Your task to perform on an android device: Go to Reddit.com Image 0: 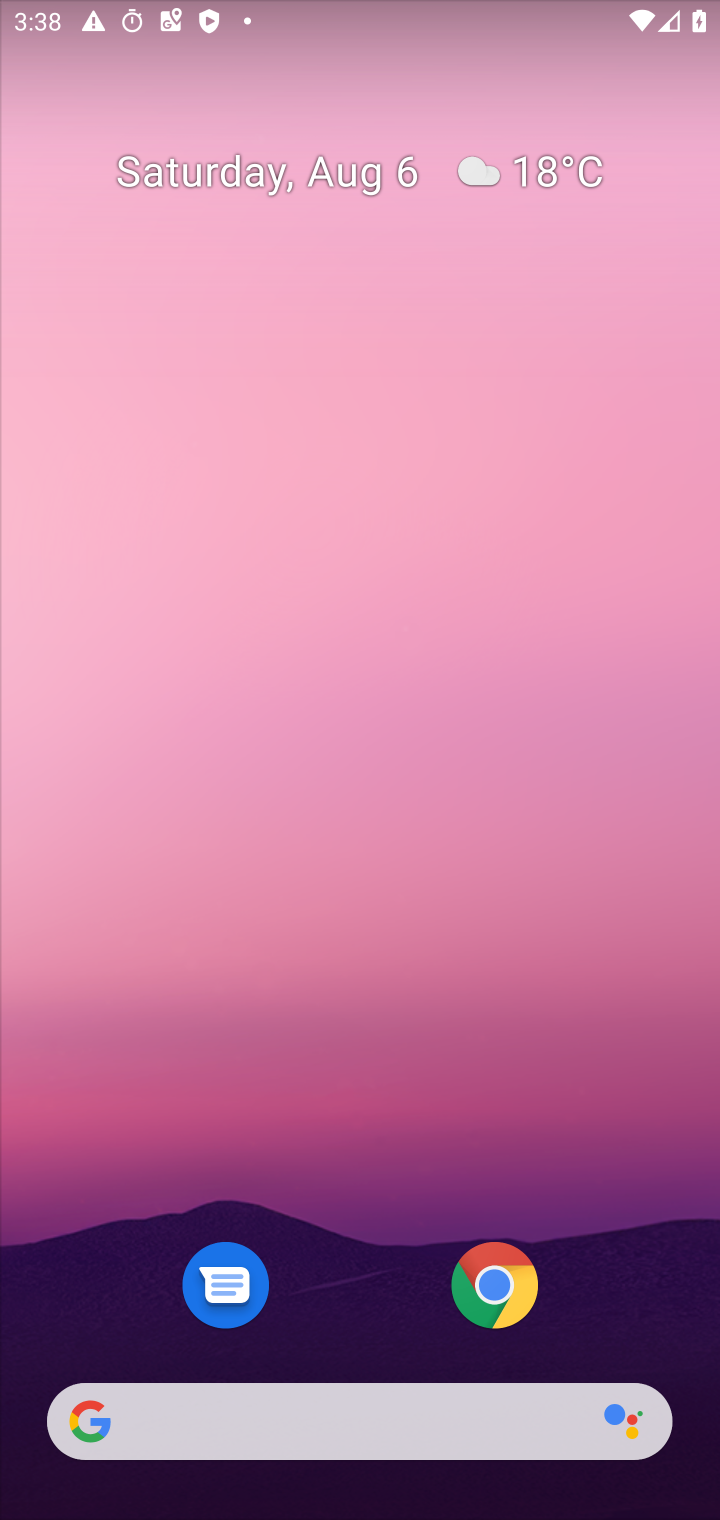
Step 0: press home button
Your task to perform on an android device: Go to Reddit.com Image 1: 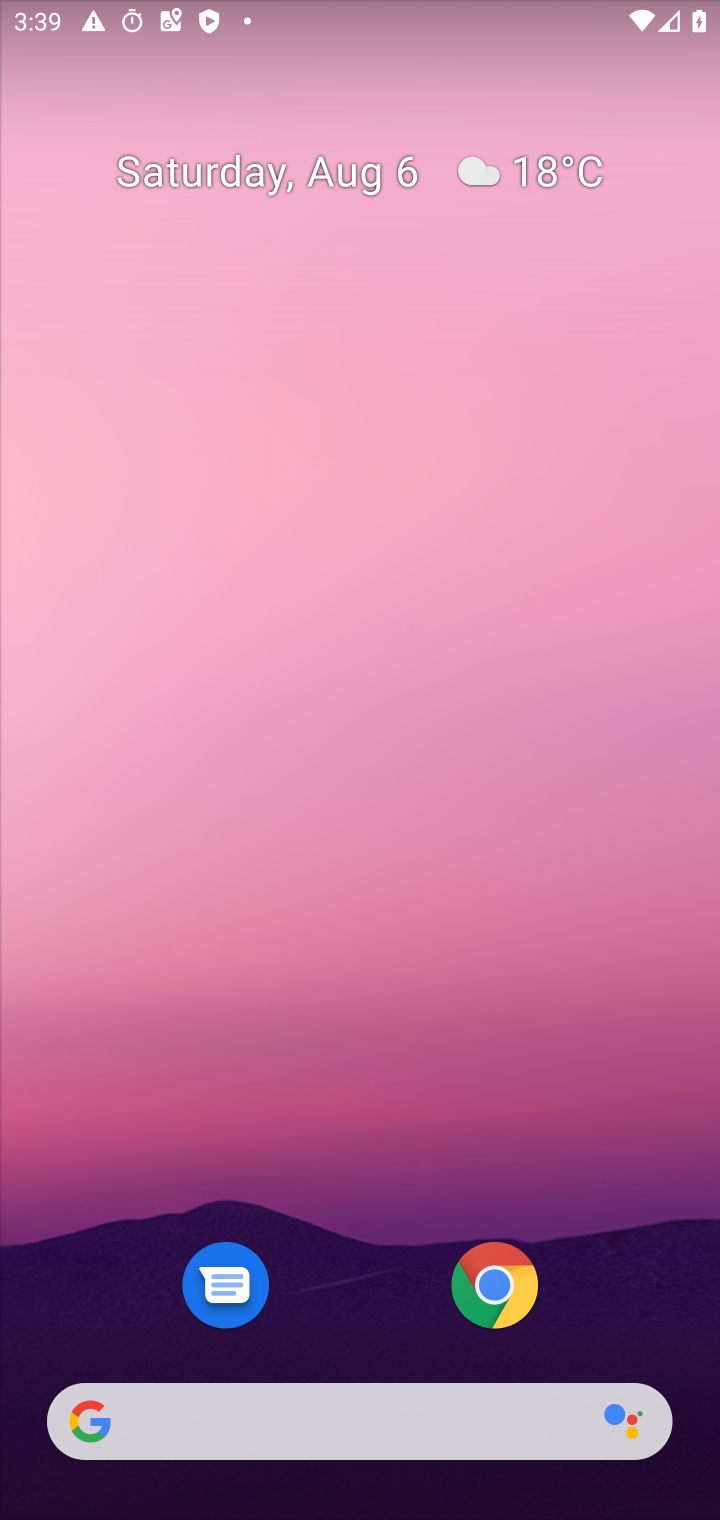
Step 1: drag from (367, 1332) to (400, 119)
Your task to perform on an android device: Go to Reddit.com Image 2: 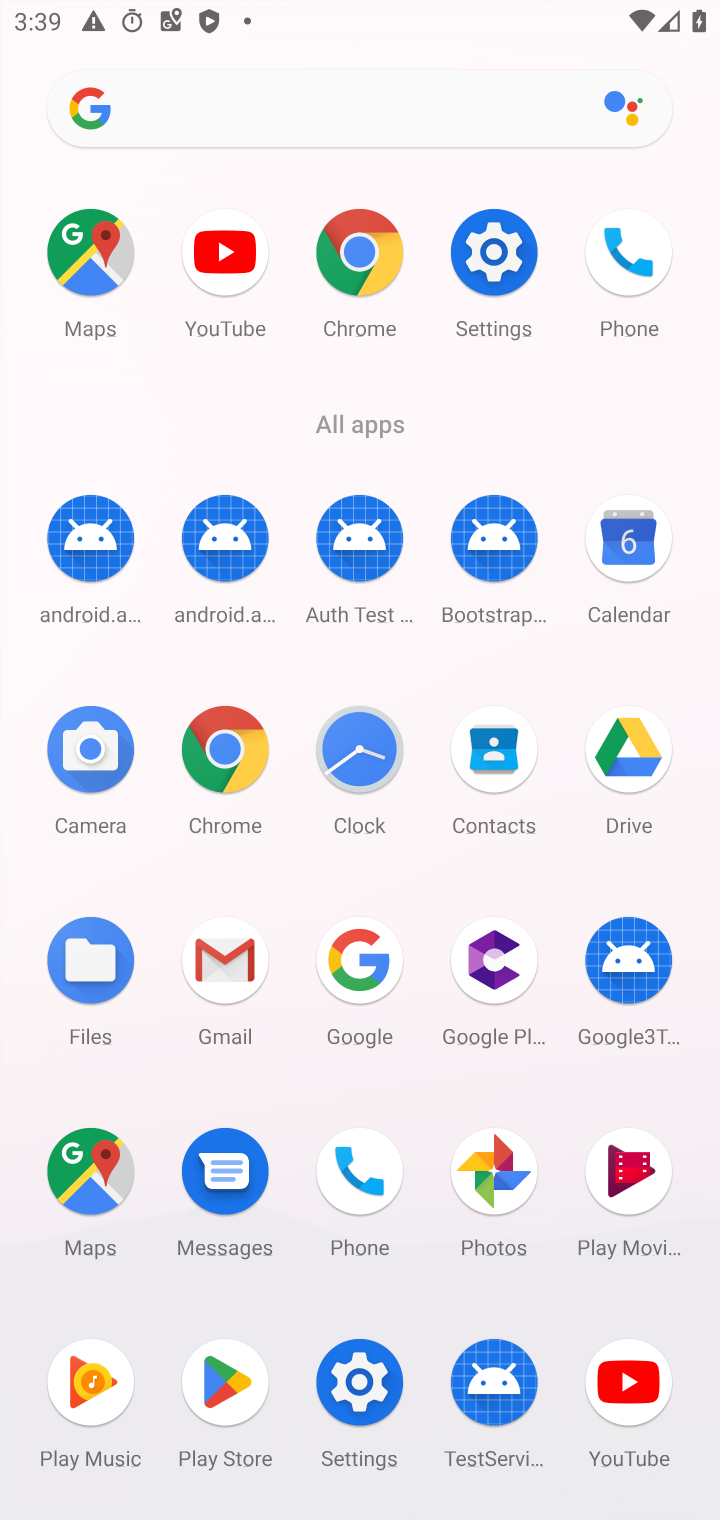
Step 2: click (212, 758)
Your task to perform on an android device: Go to Reddit.com Image 3: 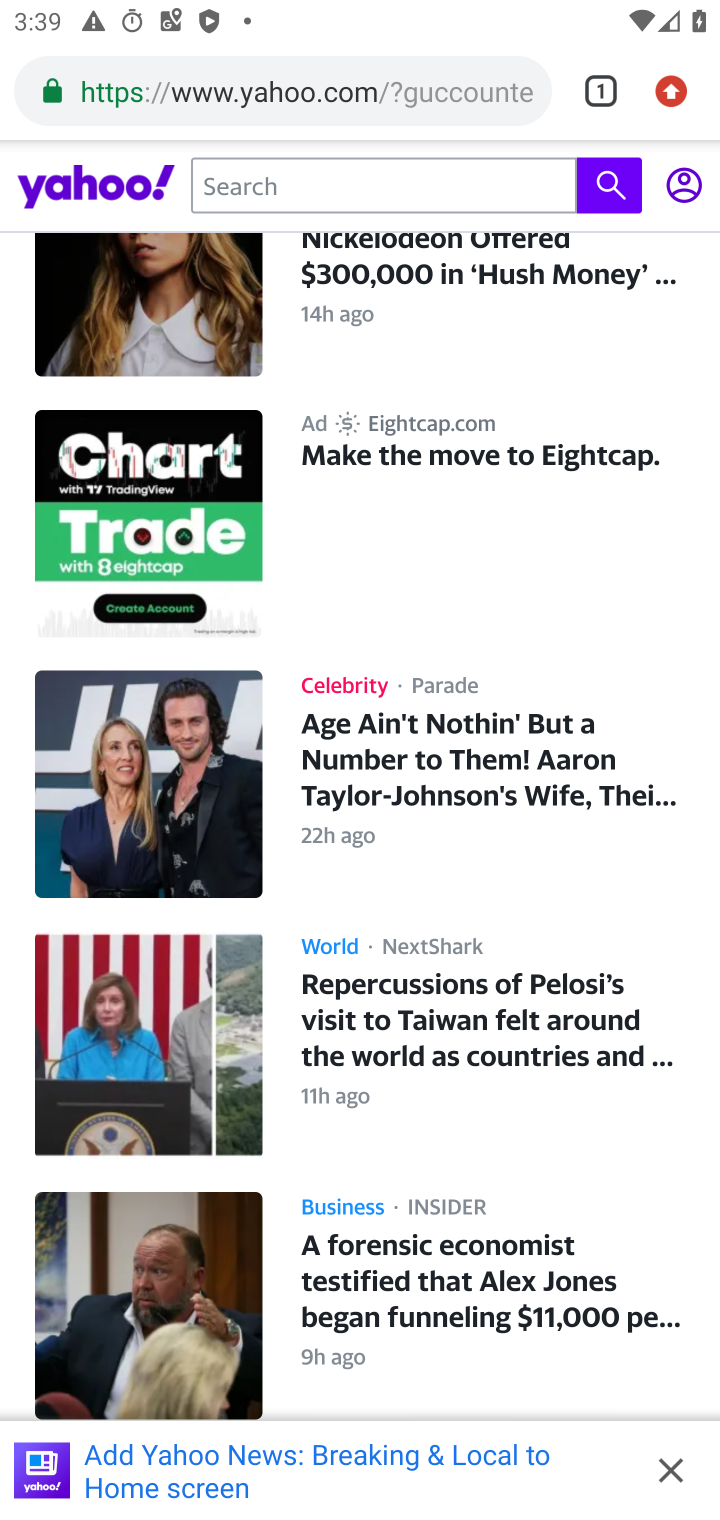
Step 3: drag from (369, 597) to (402, 1356)
Your task to perform on an android device: Go to Reddit.com Image 4: 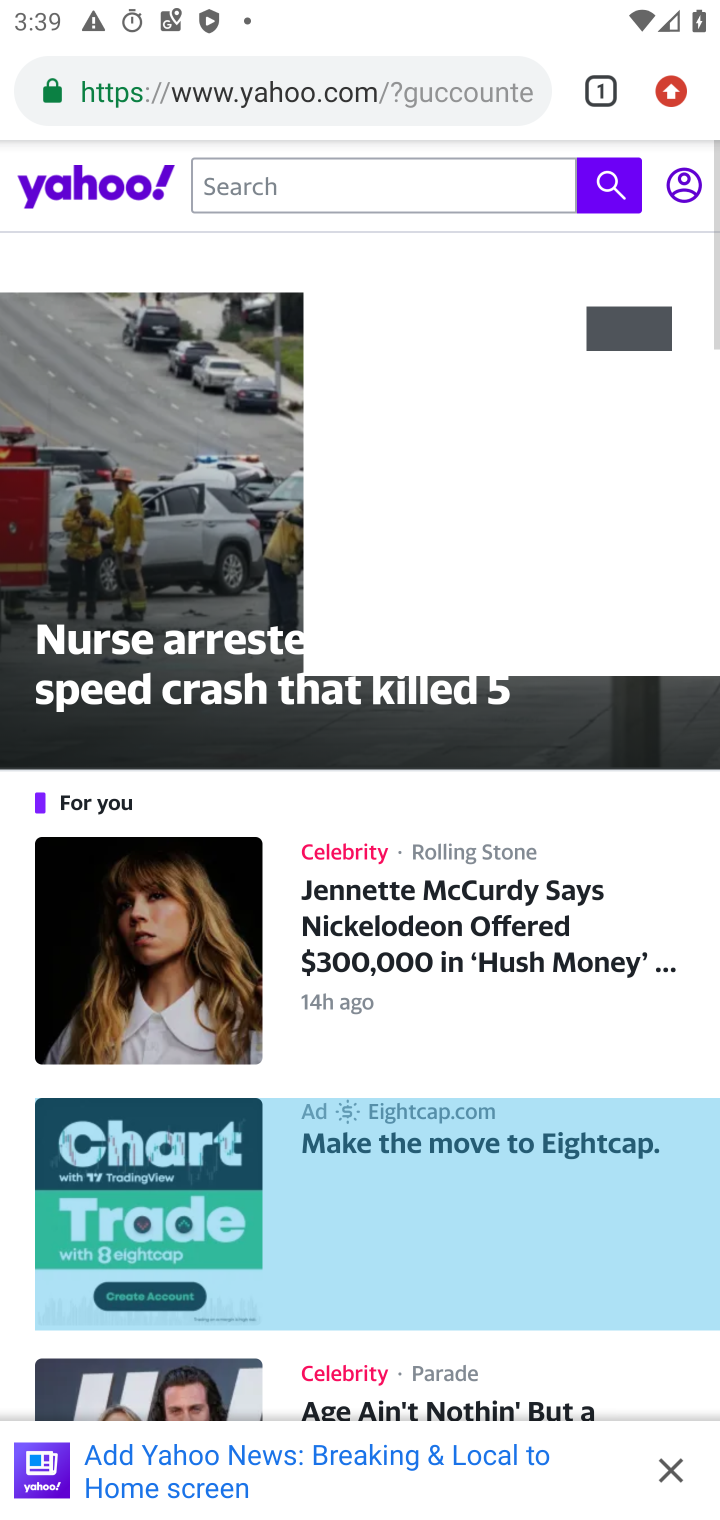
Step 4: click (590, 86)
Your task to perform on an android device: Go to Reddit.com Image 5: 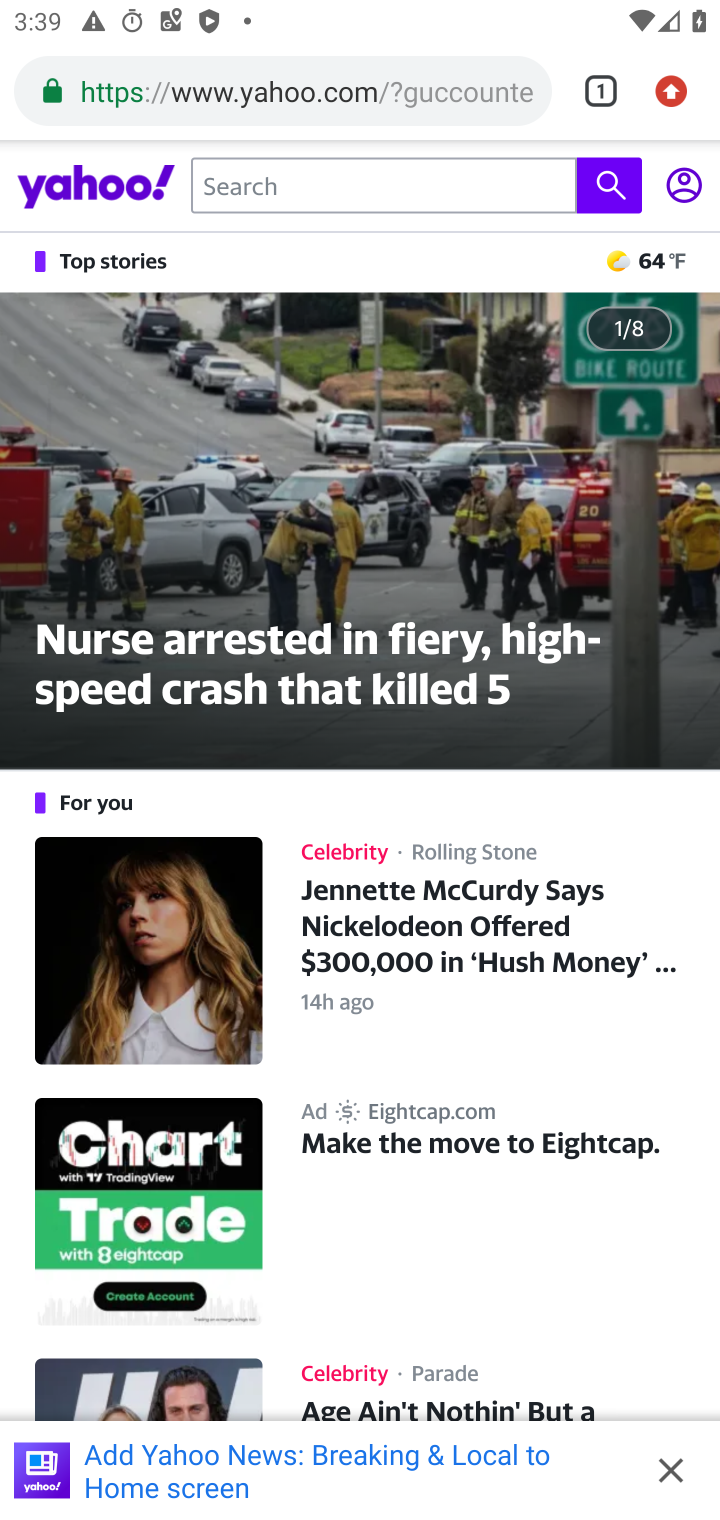
Step 5: click (598, 86)
Your task to perform on an android device: Go to Reddit.com Image 6: 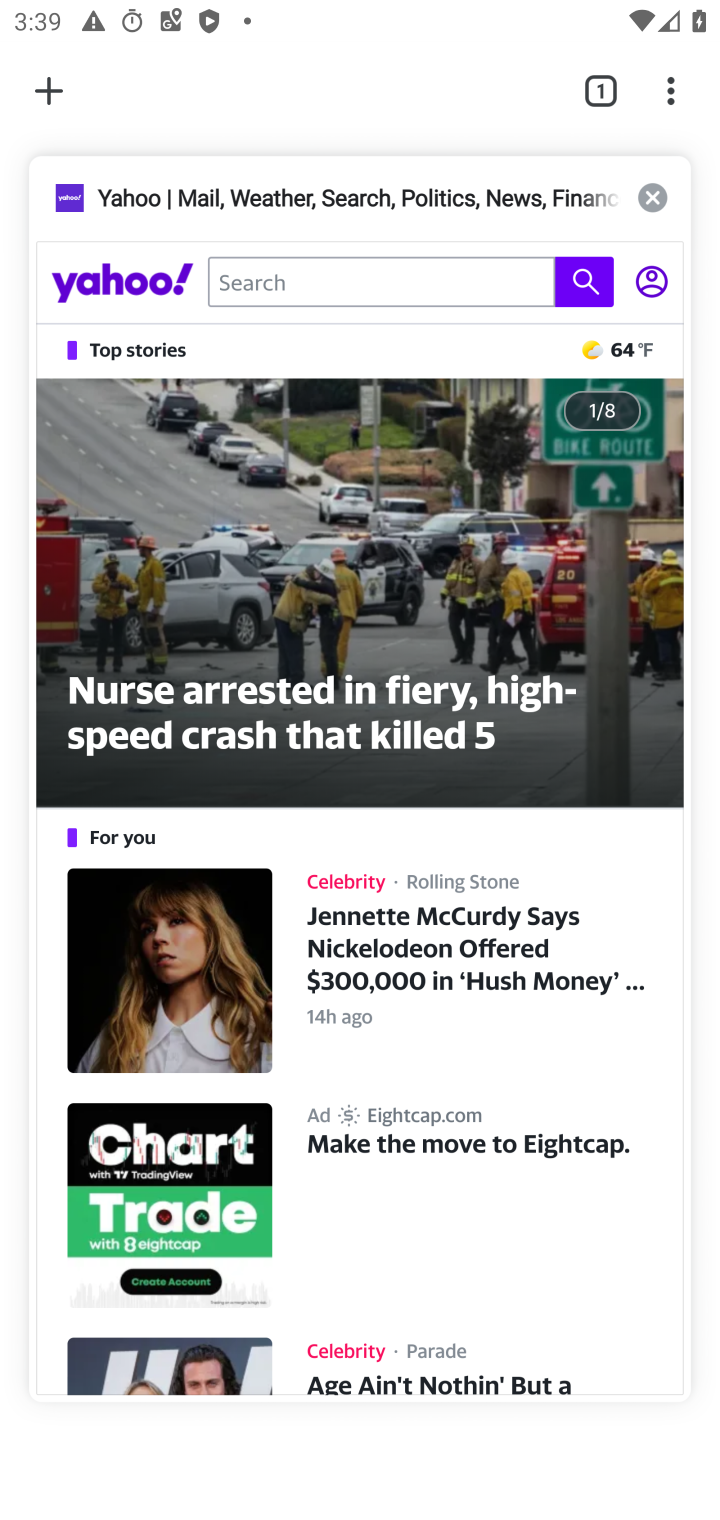
Step 6: click (652, 191)
Your task to perform on an android device: Go to Reddit.com Image 7: 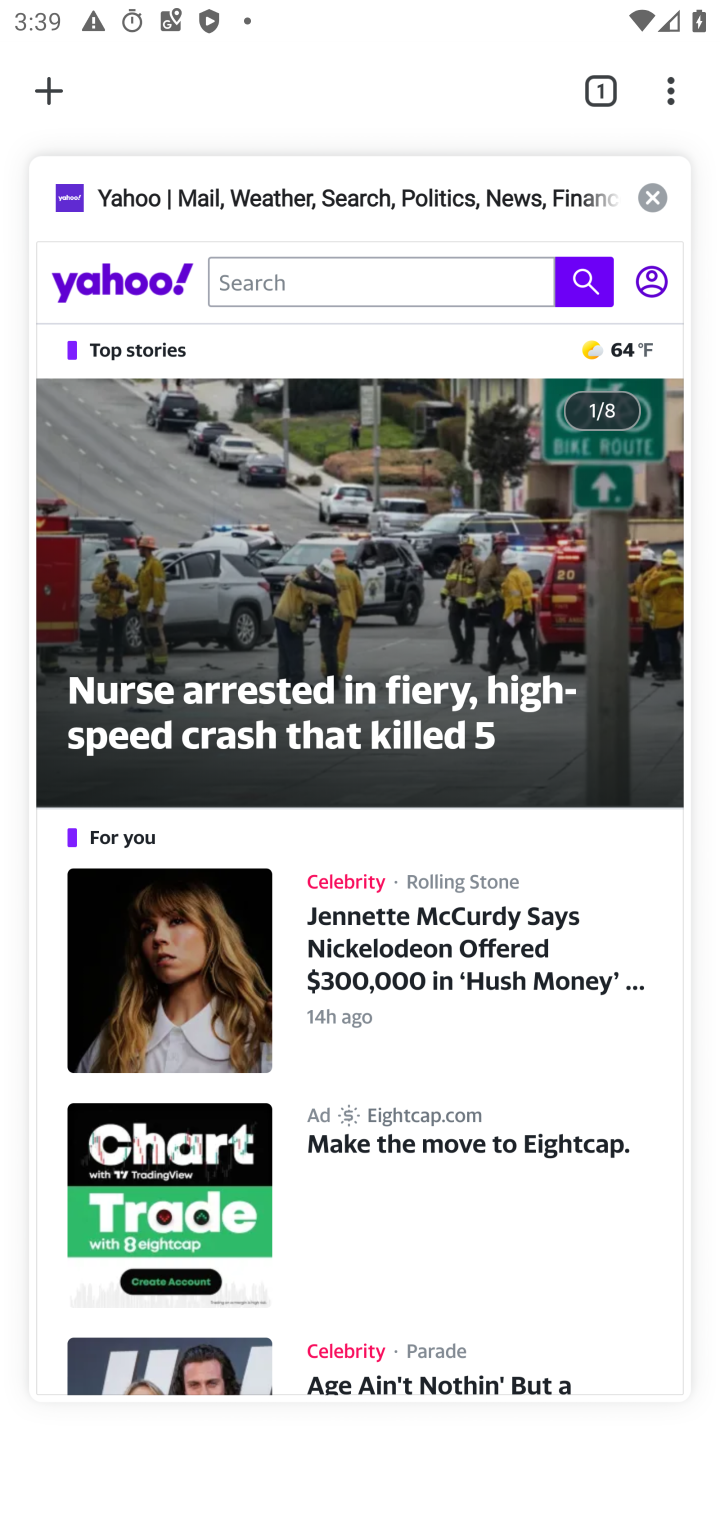
Step 7: click (28, 89)
Your task to perform on an android device: Go to Reddit.com Image 8: 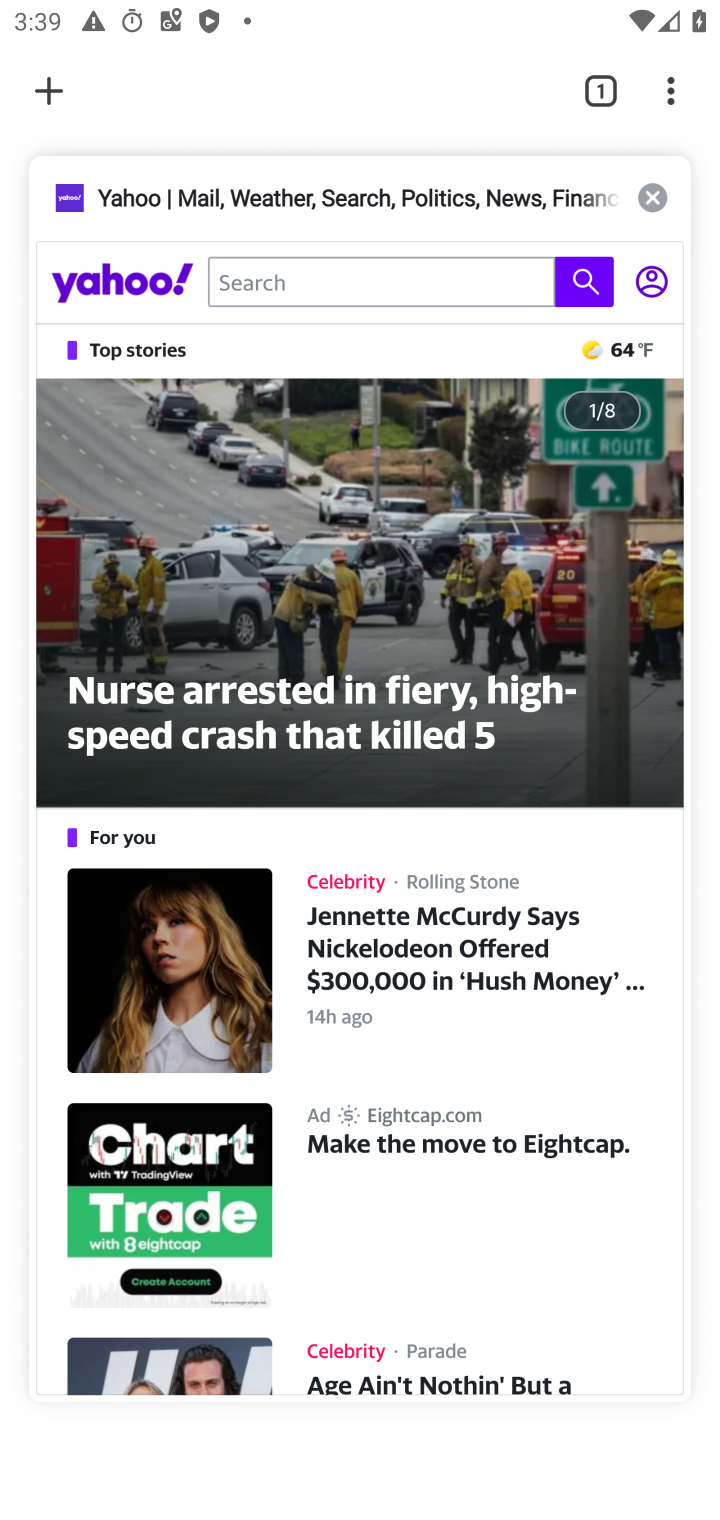
Step 8: click (44, 76)
Your task to perform on an android device: Go to Reddit.com Image 9: 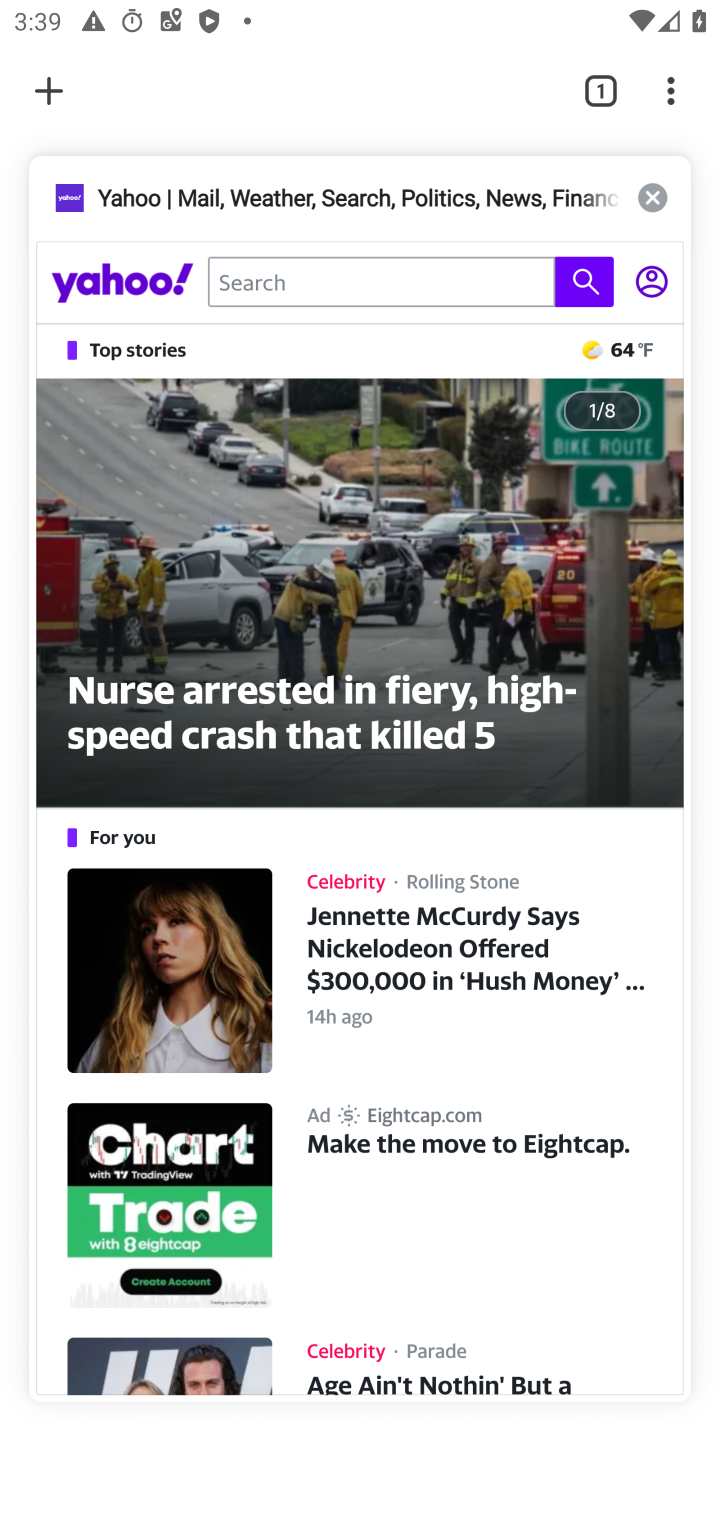
Step 9: click (47, 84)
Your task to perform on an android device: Go to Reddit.com Image 10: 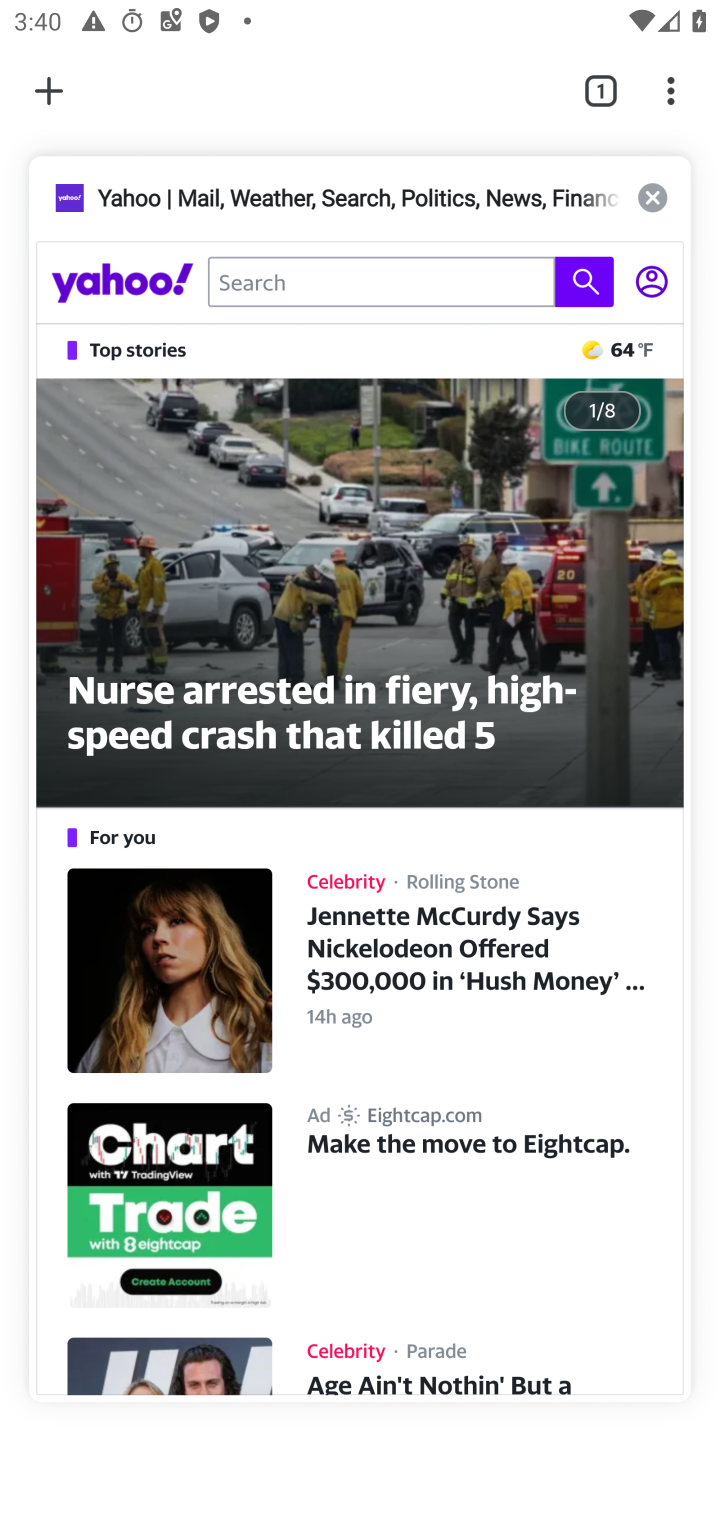
Step 10: click (54, 91)
Your task to perform on an android device: Go to Reddit.com Image 11: 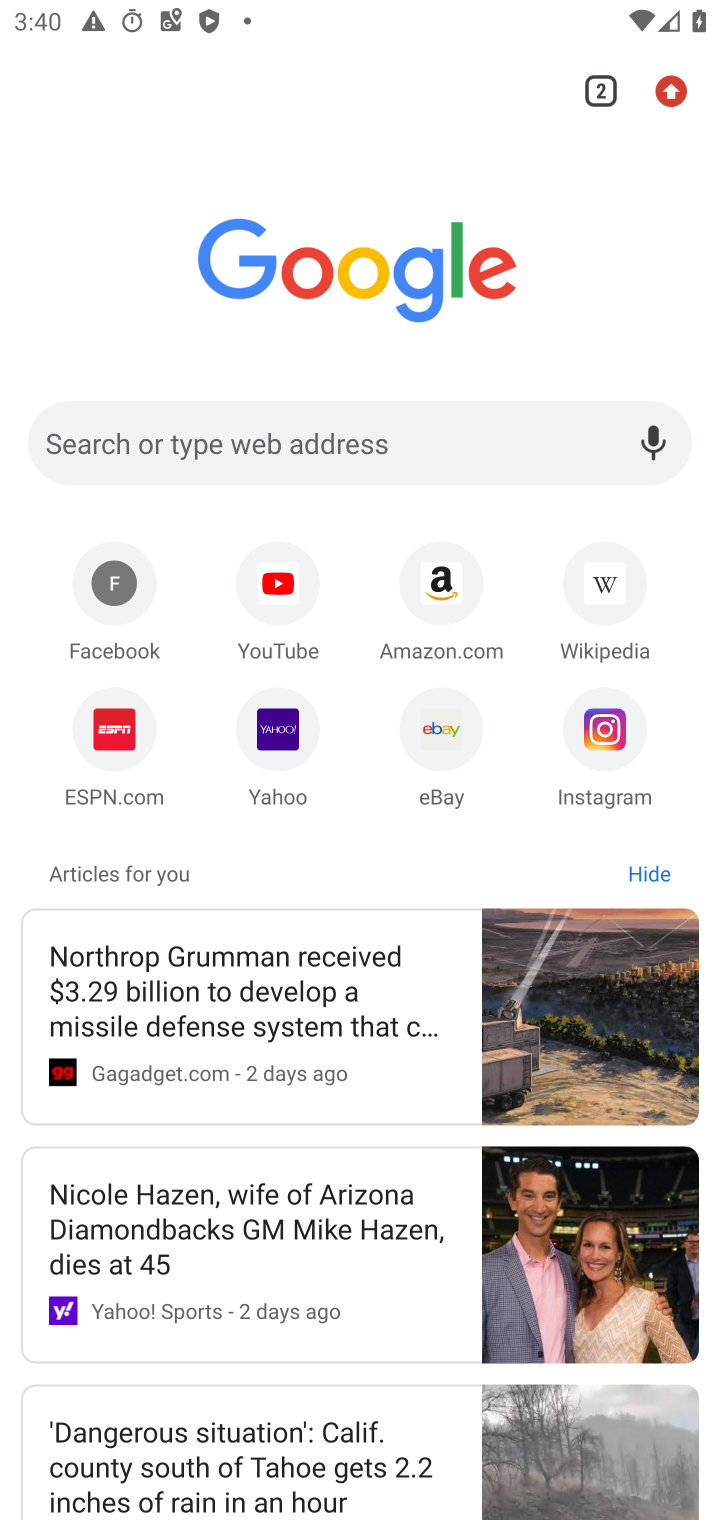
Step 11: click (179, 430)
Your task to perform on an android device: Go to Reddit.com Image 12: 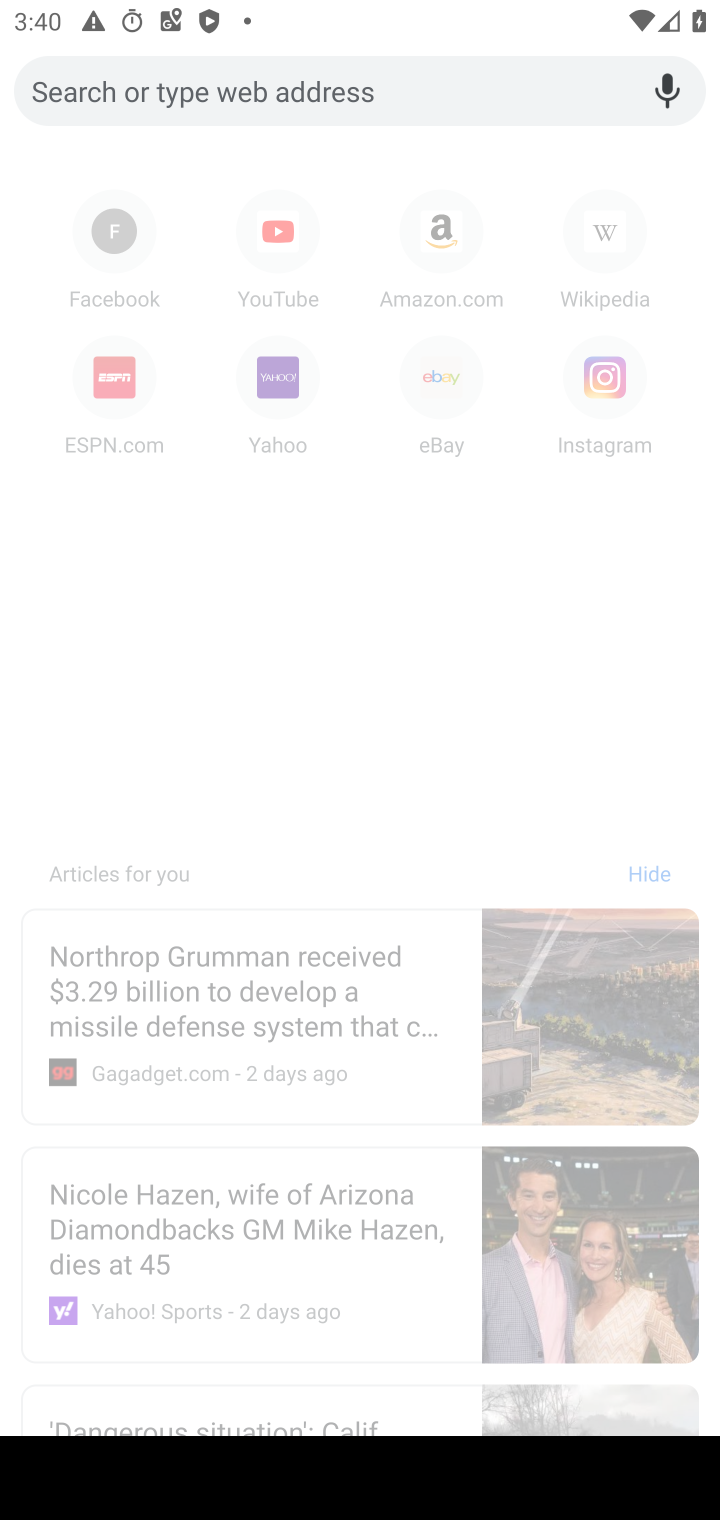
Step 12: type "reddit.com"
Your task to perform on an android device: Go to Reddit.com Image 13: 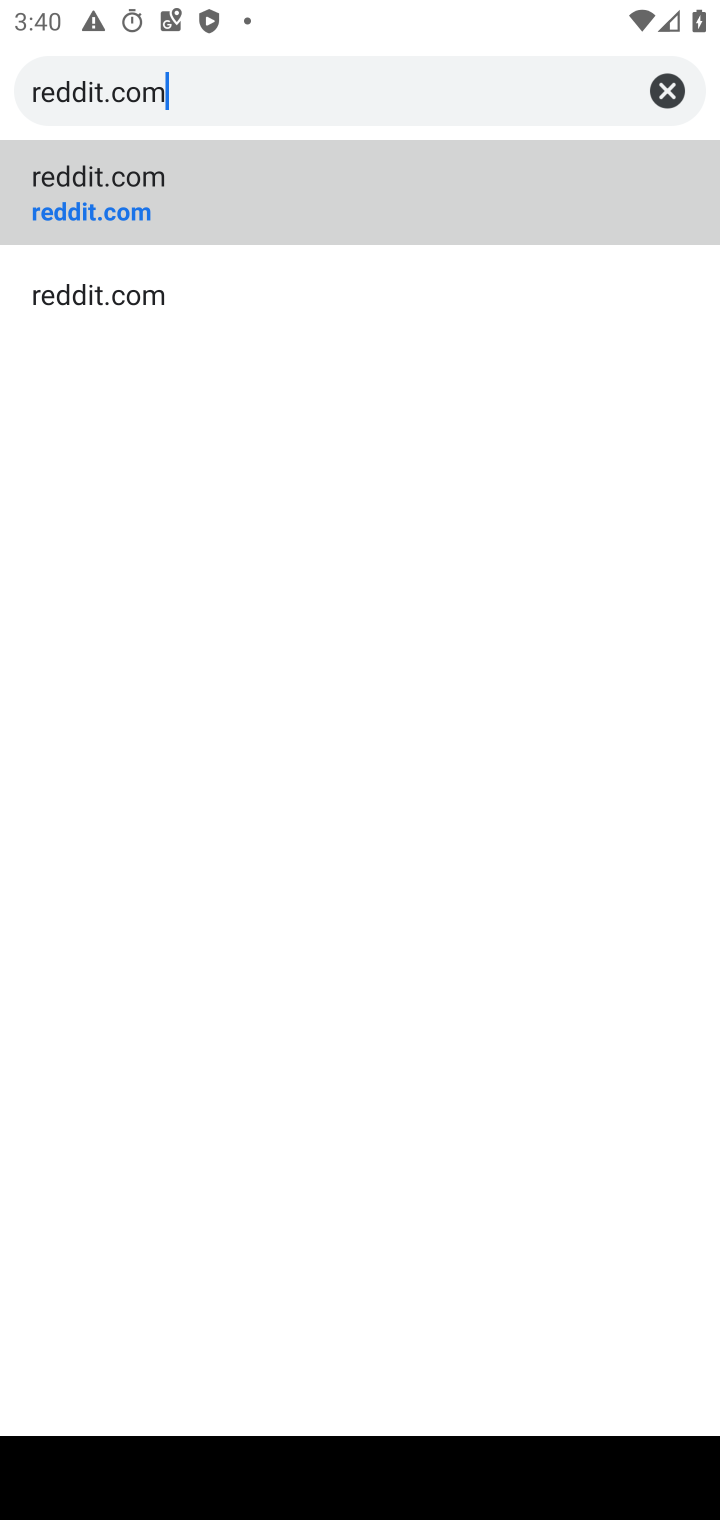
Step 13: click (180, 188)
Your task to perform on an android device: Go to Reddit.com Image 14: 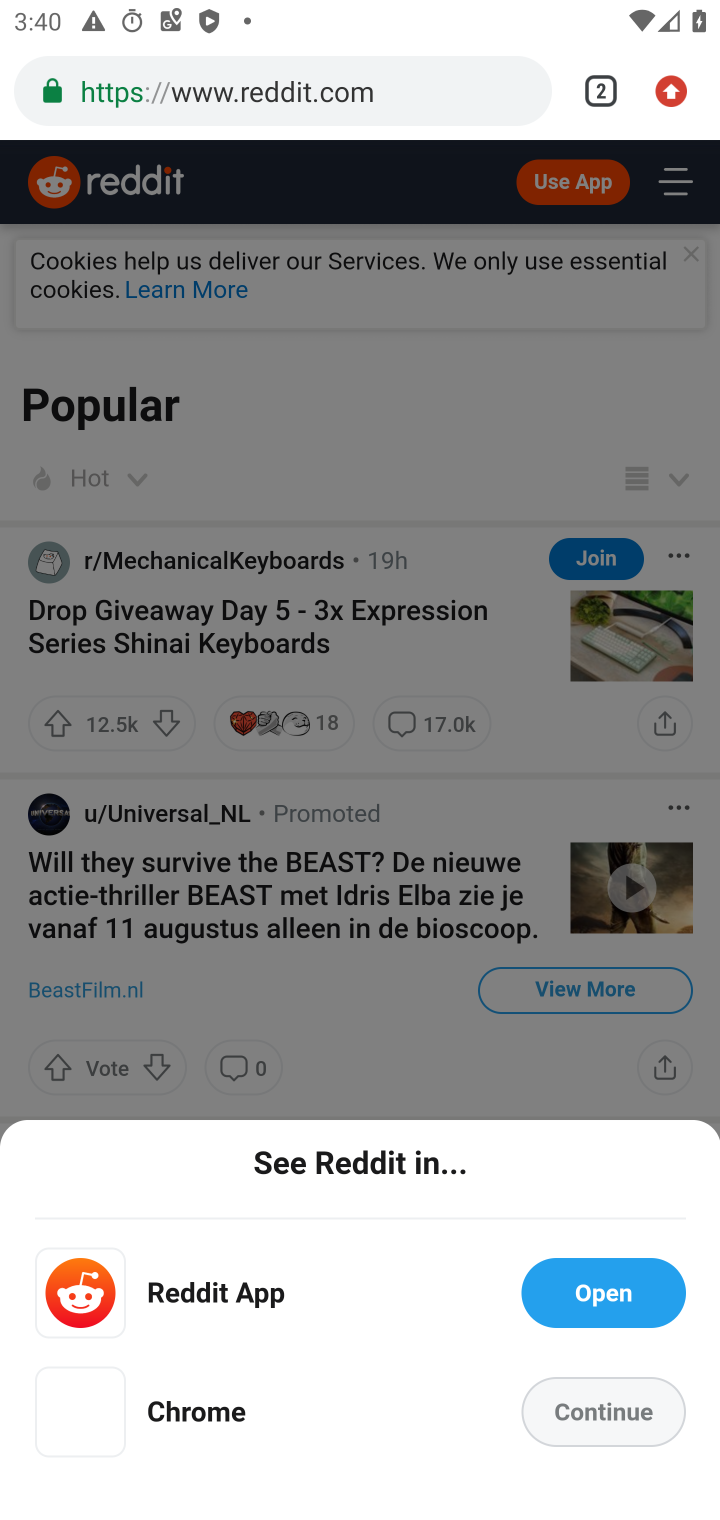
Step 14: drag from (381, 1197) to (418, 355)
Your task to perform on an android device: Go to Reddit.com Image 15: 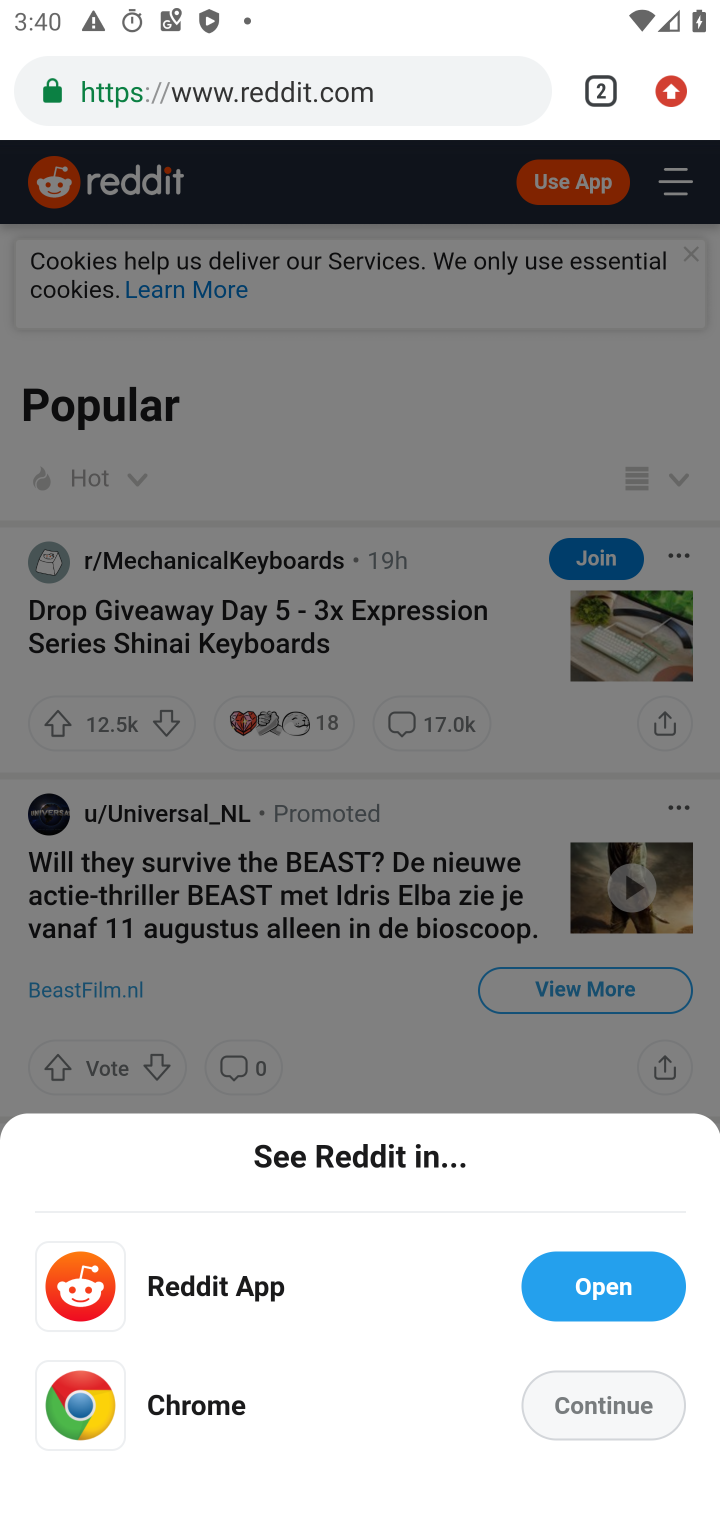
Step 15: click (603, 1410)
Your task to perform on an android device: Go to Reddit.com Image 16: 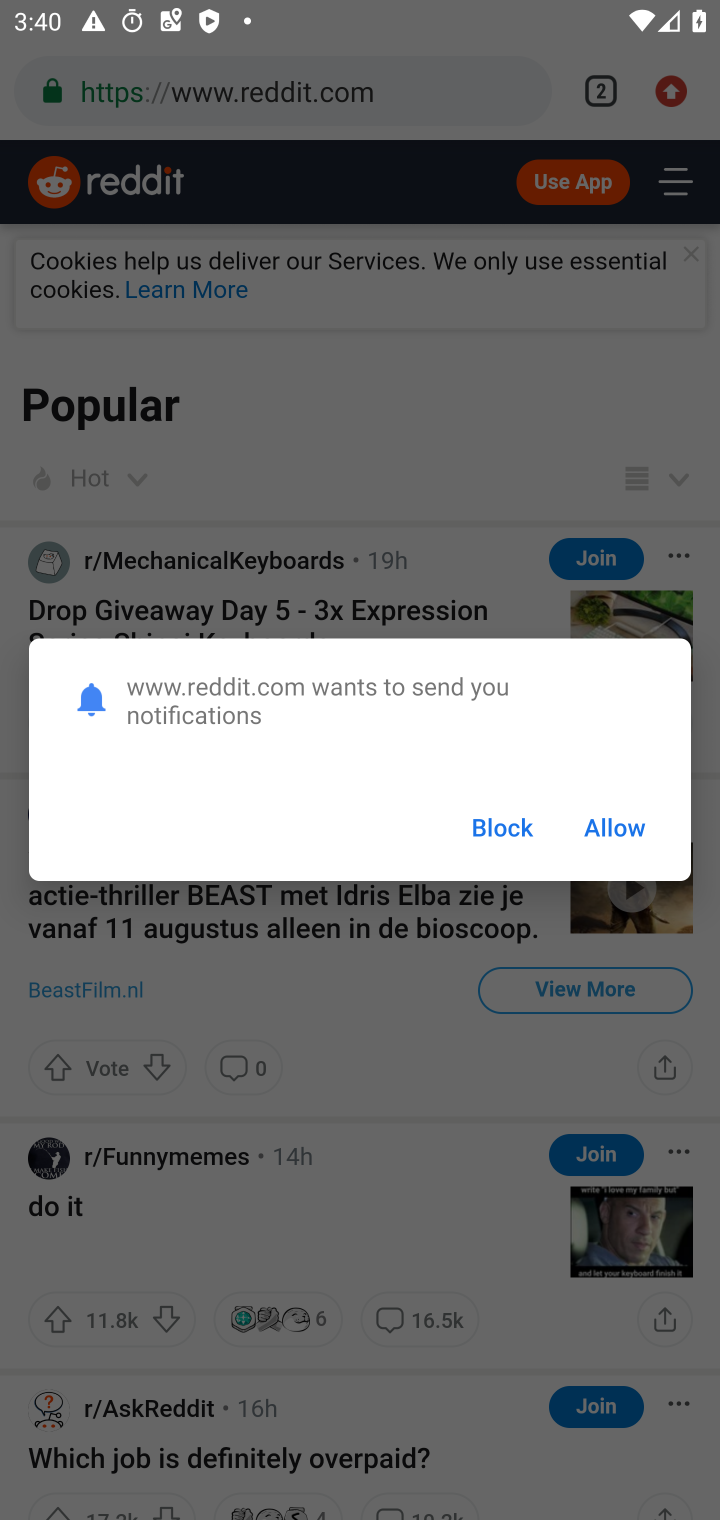
Step 16: click (595, 820)
Your task to perform on an android device: Go to Reddit.com Image 17: 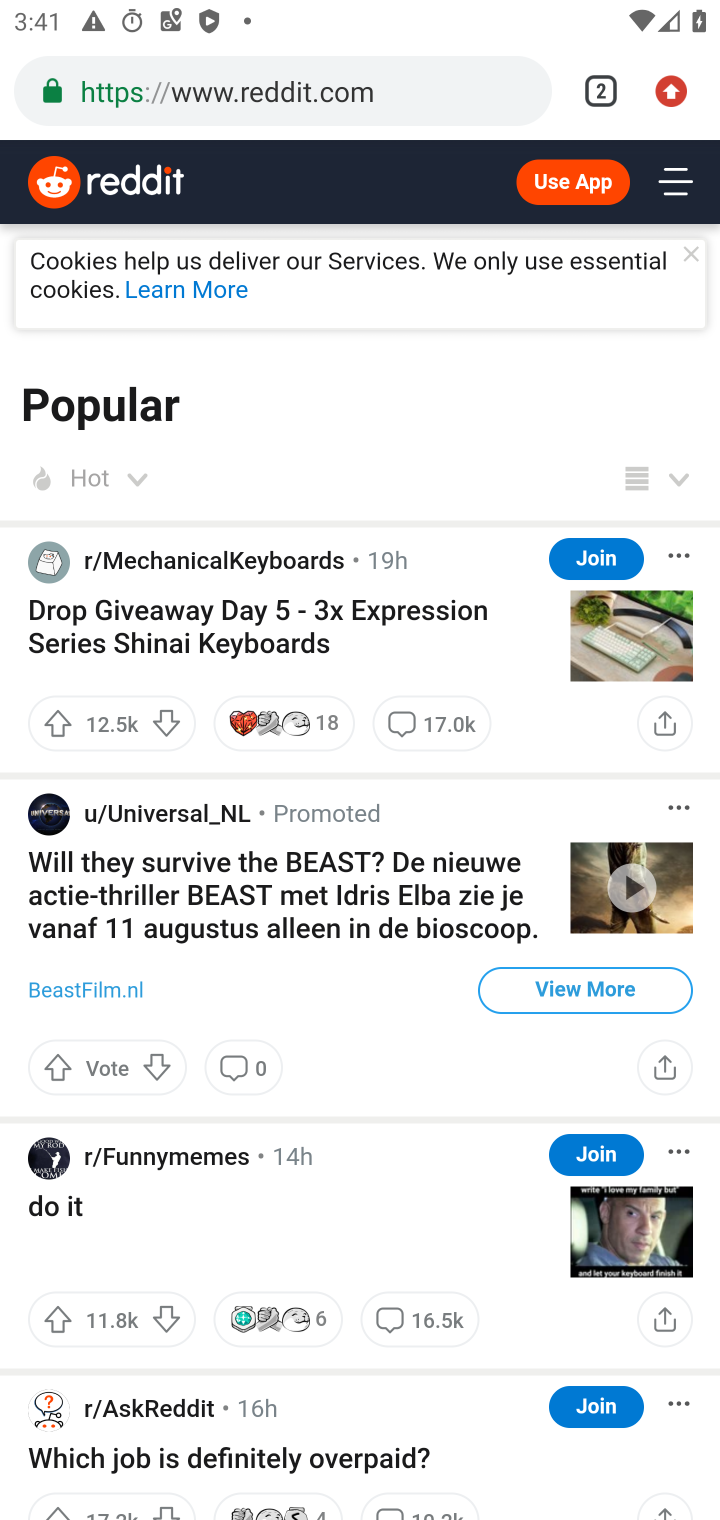
Step 17: task complete